Your task to perform on an android device: Open Google Maps Image 0: 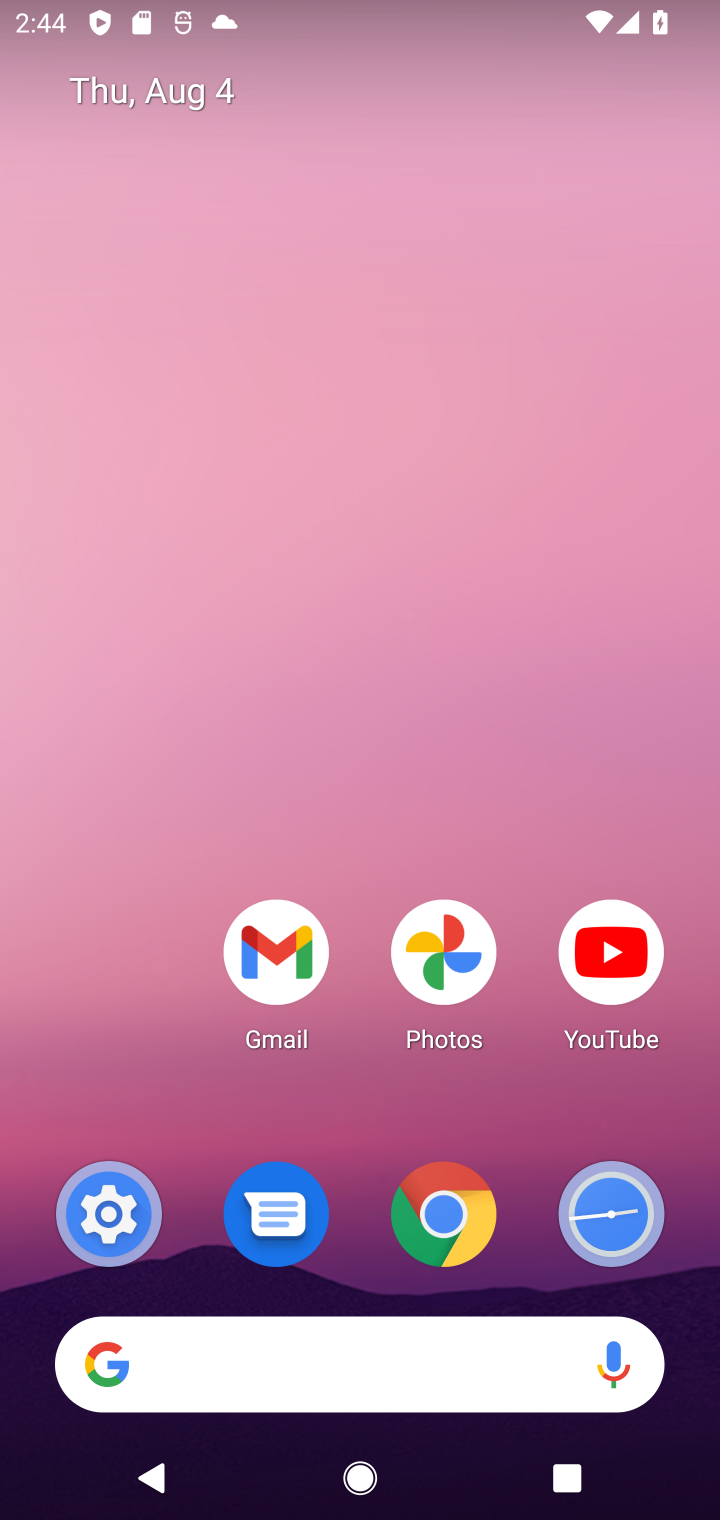
Step 0: drag from (99, 1053) to (202, 0)
Your task to perform on an android device: Open Google Maps Image 1: 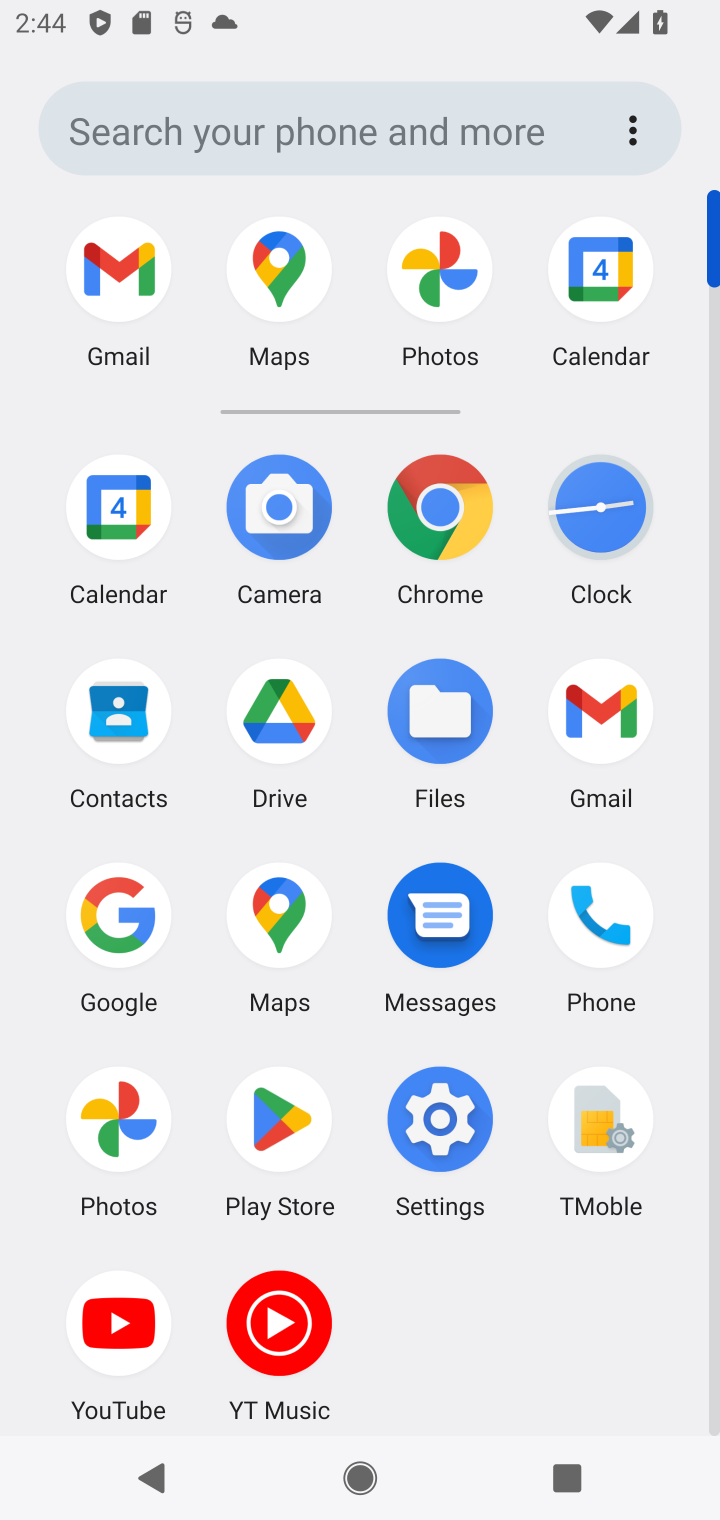
Step 1: click (261, 920)
Your task to perform on an android device: Open Google Maps Image 2: 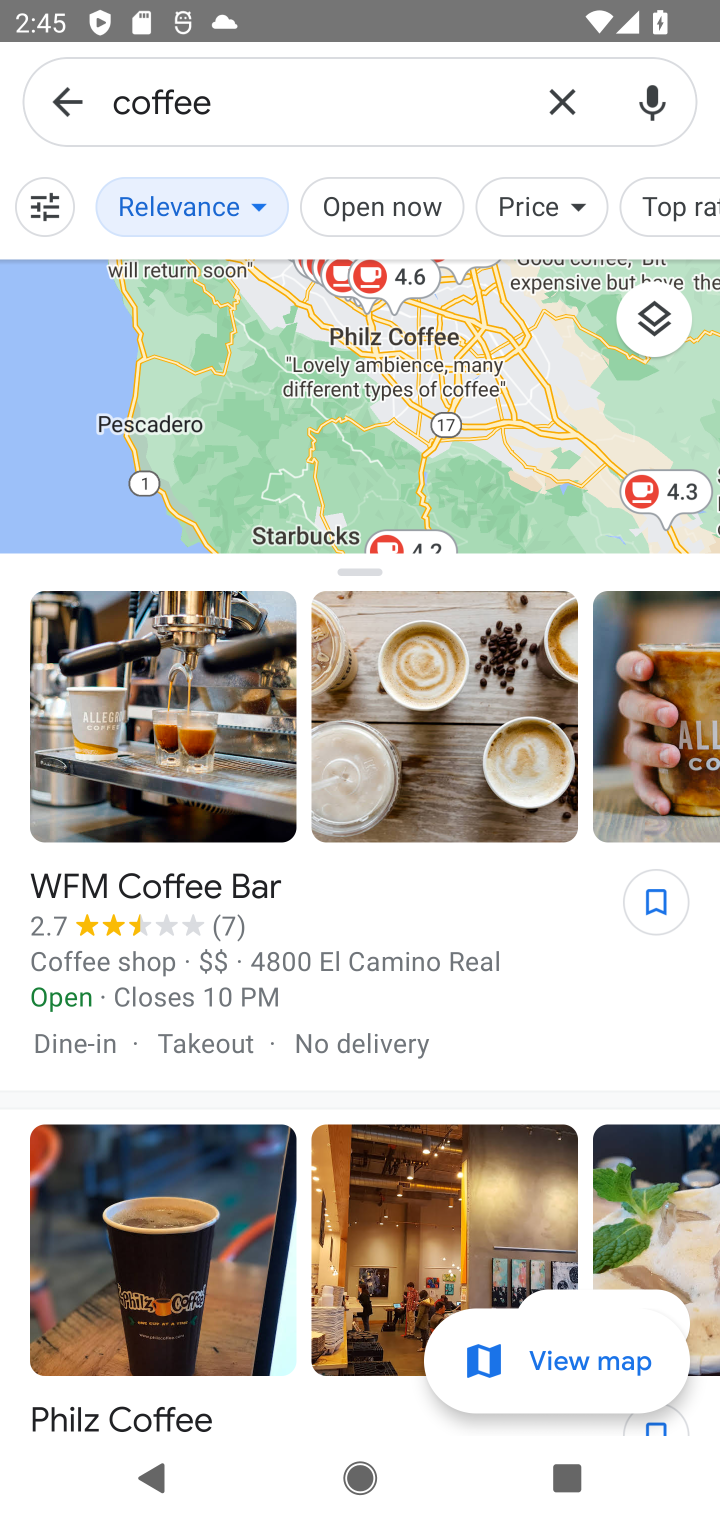
Step 2: click (560, 104)
Your task to perform on an android device: Open Google Maps Image 3: 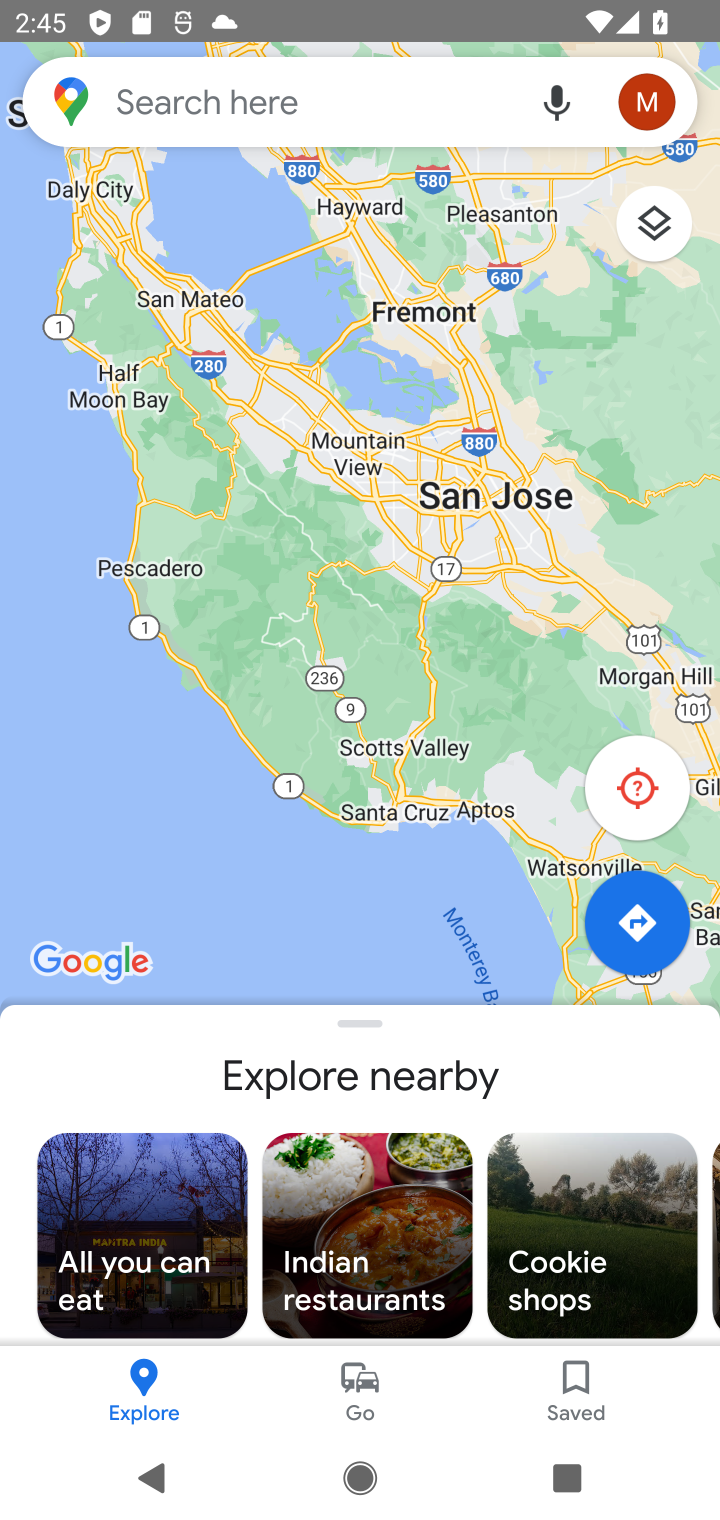
Step 3: task complete